Your task to perform on an android device: Open Google Chrome and click the shortcut for Amazon.com Image 0: 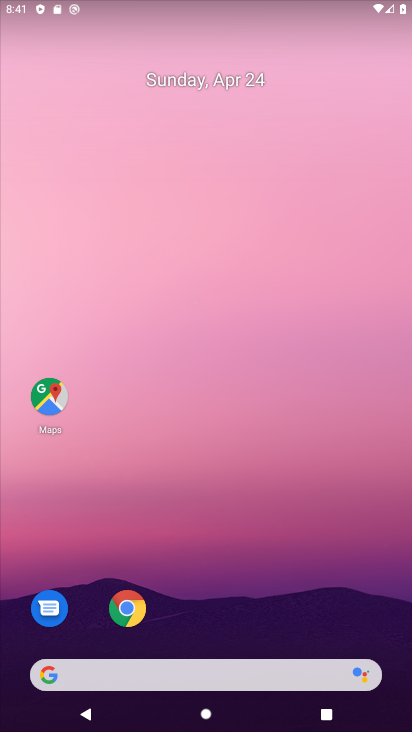
Step 0: click (112, 610)
Your task to perform on an android device: Open Google Chrome and click the shortcut for Amazon.com Image 1: 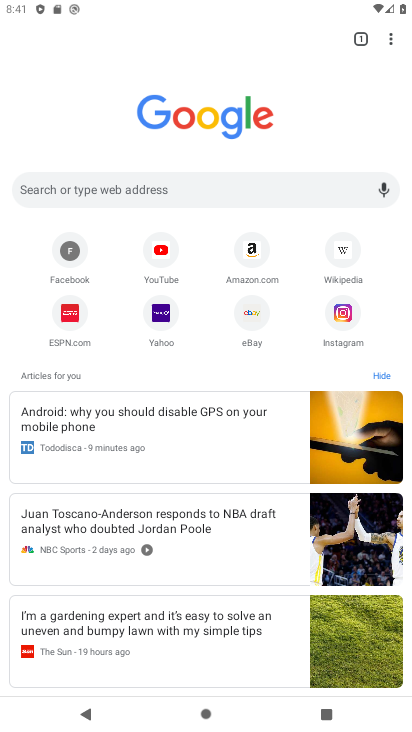
Step 1: click (252, 255)
Your task to perform on an android device: Open Google Chrome and click the shortcut for Amazon.com Image 2: 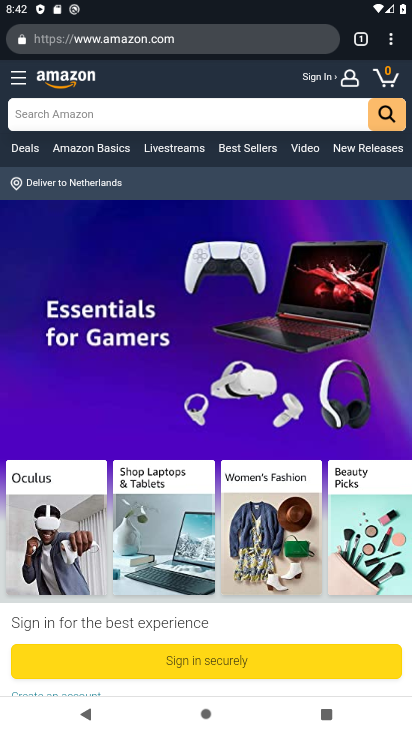
Step 2: task complete